Your task to perform on an android device: turn on the 24-hour format for clock Image 0: 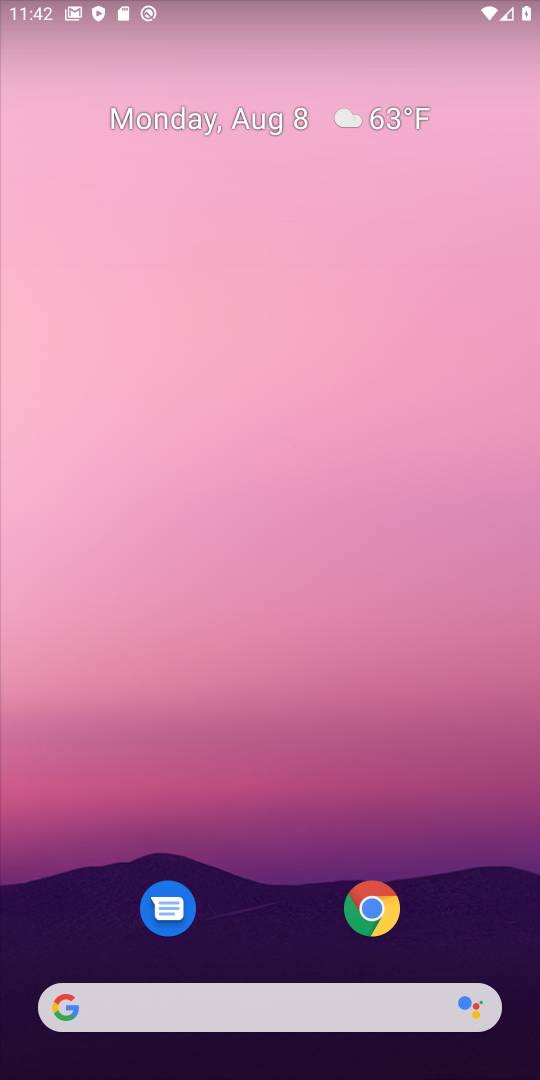
Step 0: drag from (435, 912) to (271, 131)
Your task to perform on an android device: turn on the 24-hour format for clock Image 1: 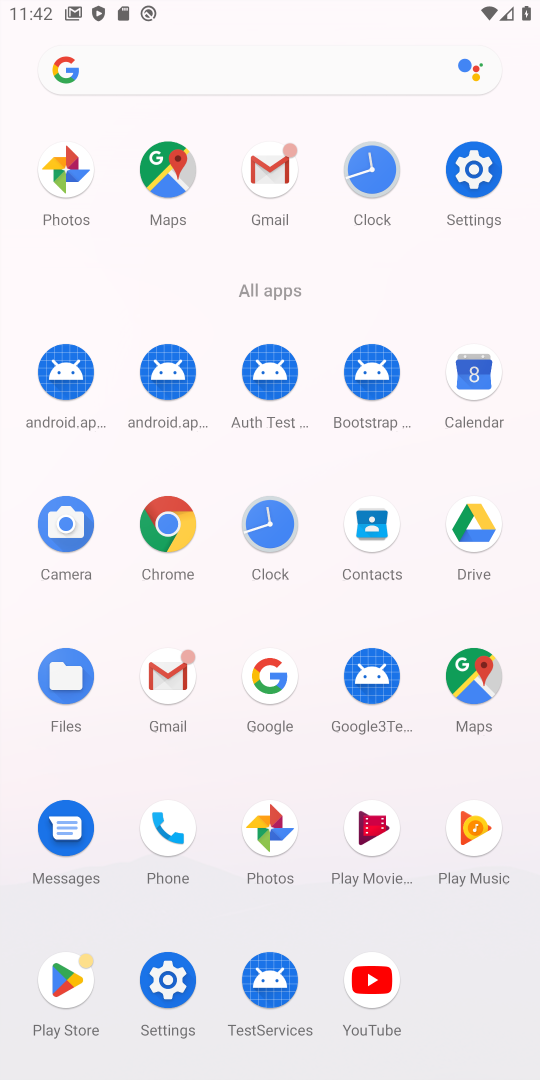
Step 1: click (267, 534)
Your task to perform on an android device: turn on the 24-hour format for clock Image 2: 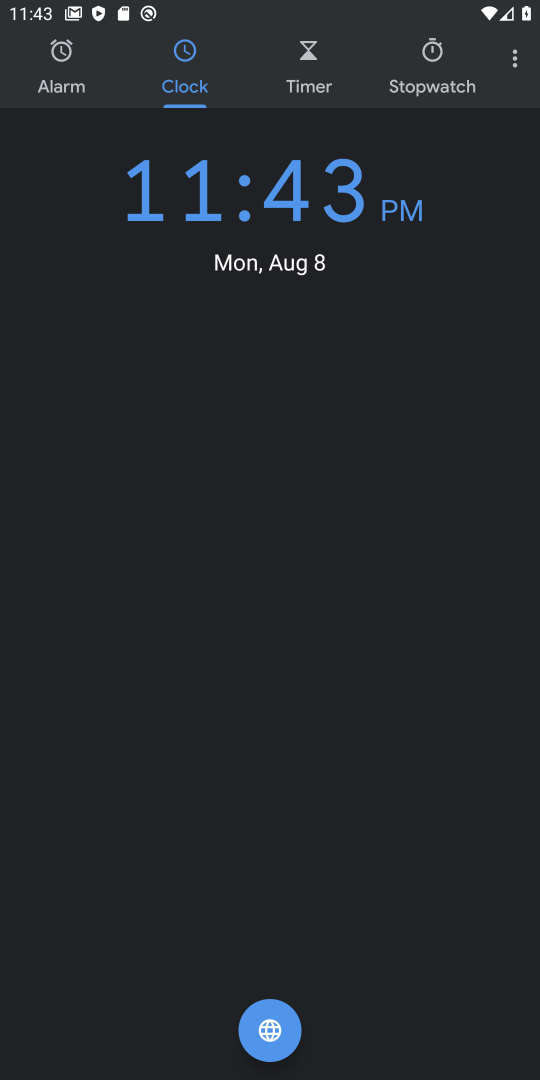
Step 2: click (522, 70)
Your task to perform on an android device: turn on the 24-hour format for clock Image 3: 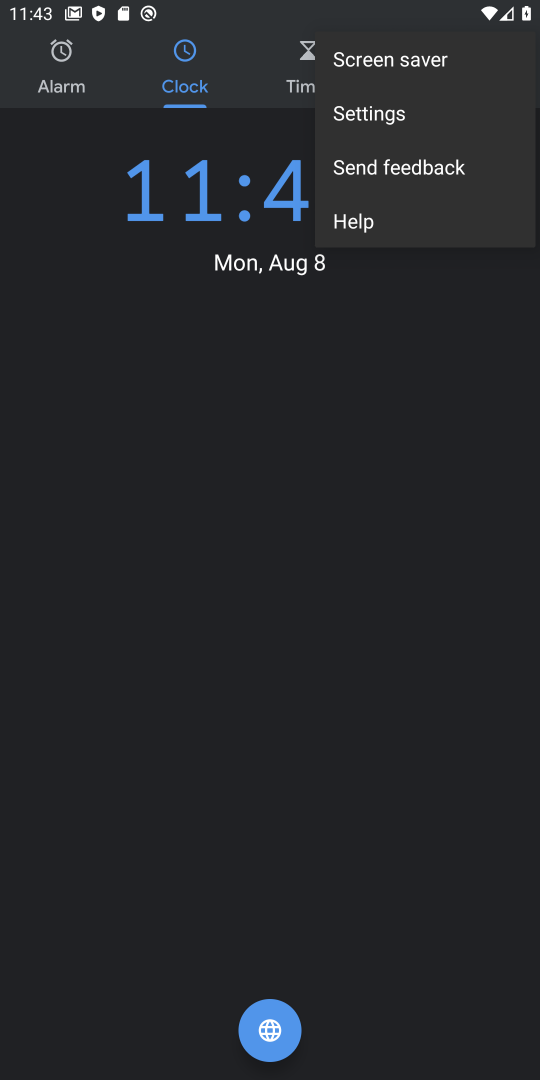
Step 3: click (446, 110)
Your task to perform on an android device: turn on the 24-hour format for clock Image 4: 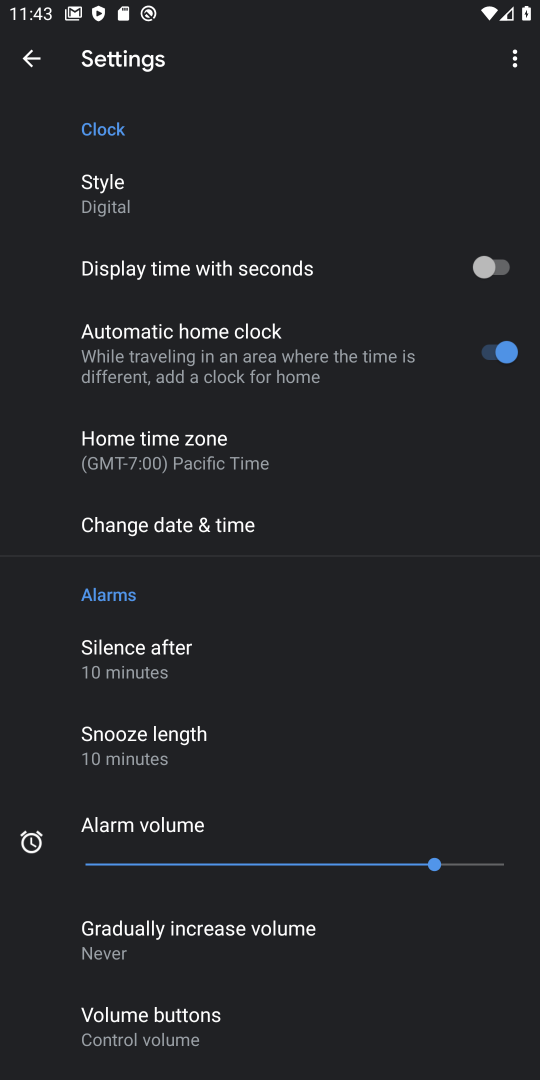
Step 4: click (348, 523)
Your task to perform on an android device: turn on the 24-hour format for clock Image 5: 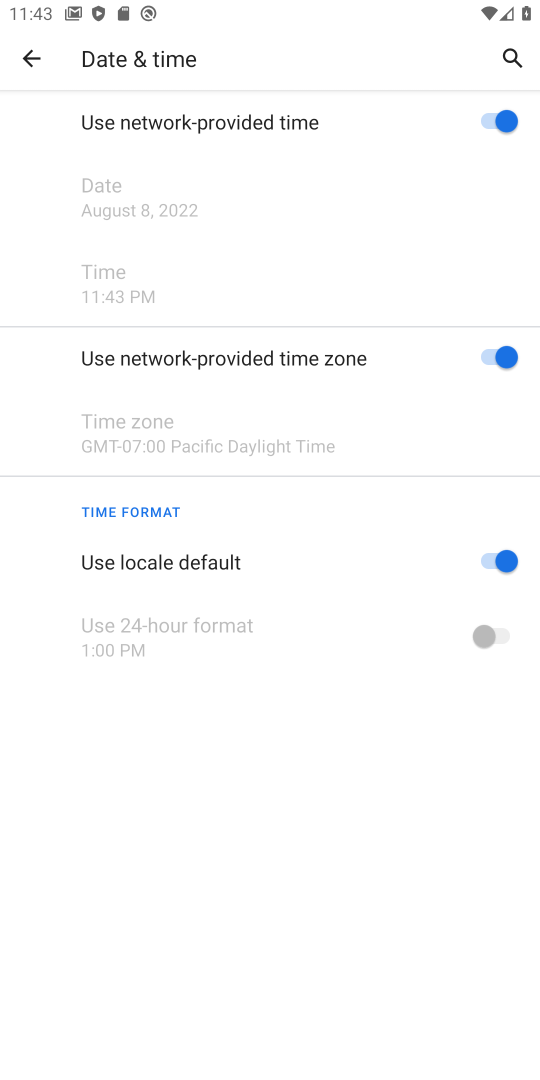
Step 5: click (509, 566)
Your task to perform on an android device: turn on the 24-hour format for clock Image 6: 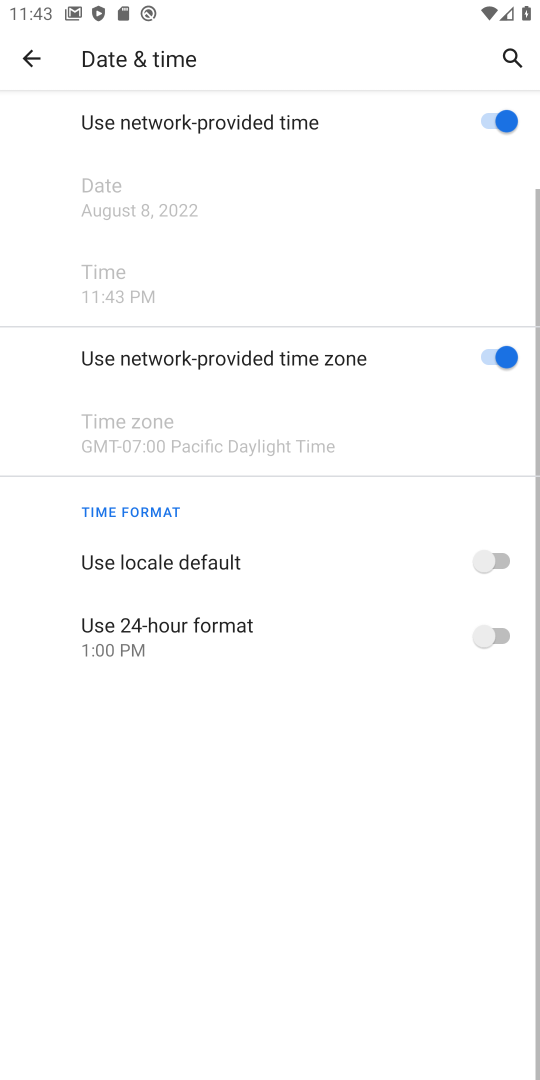
Step 6: click (494, 635)
Your task to perform on an android device: turn on the 24-hour format for clock Image 7: 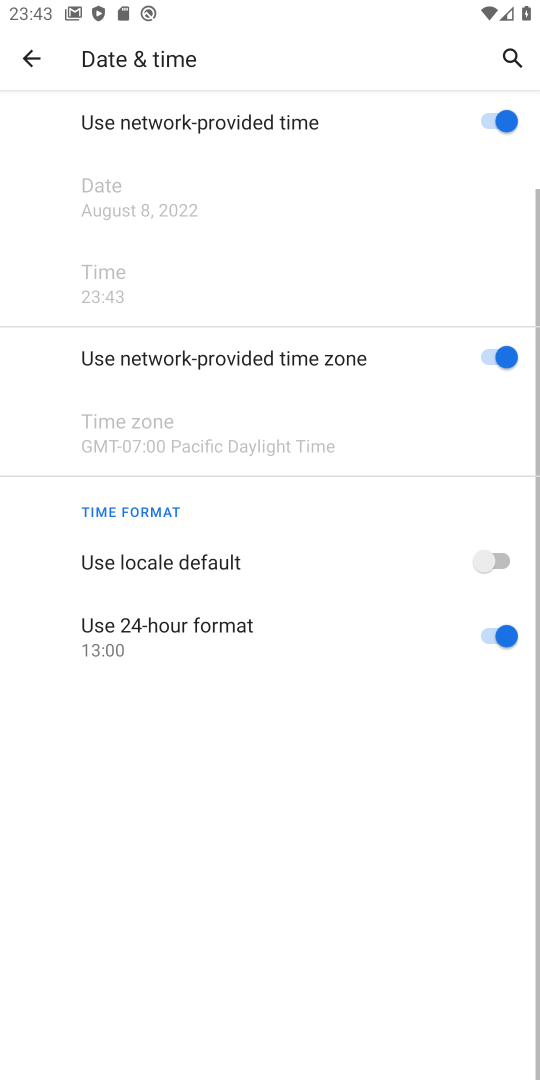
Step 7: task complete